Your task to perform on an android device: Open Maps and search for coffee Image 0: 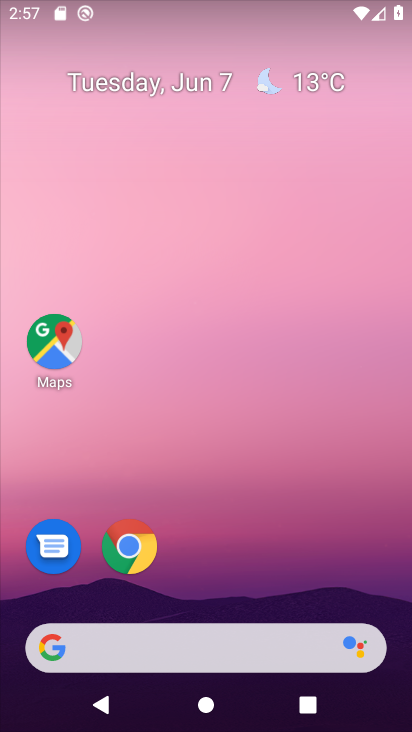
Step 0: drag from (339, 547) to (346, 333)
Your task to perform on an android device: Open Maps and search for coffee Image 1: 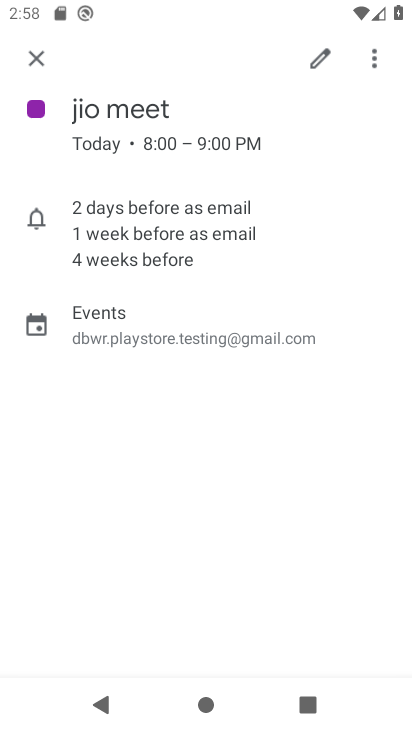
Step 1: press home button
Your task to perform on an android device: Open Maps and search for coffee Image 2: 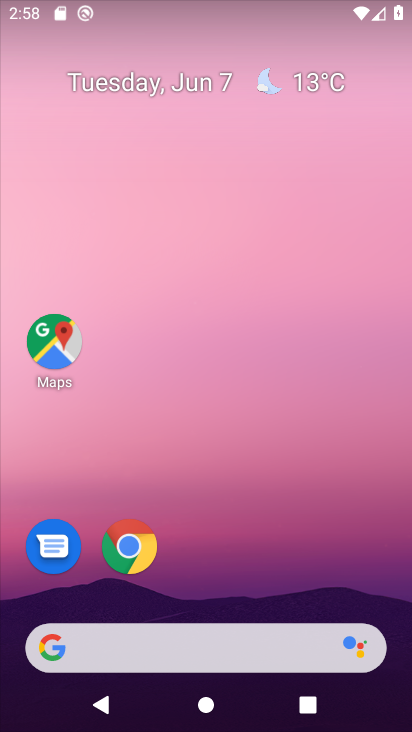
Step 2: drag from (353, 574) to (331, 131)
Your task to perform on an android device: Open Maps and search for coffee Image 3: 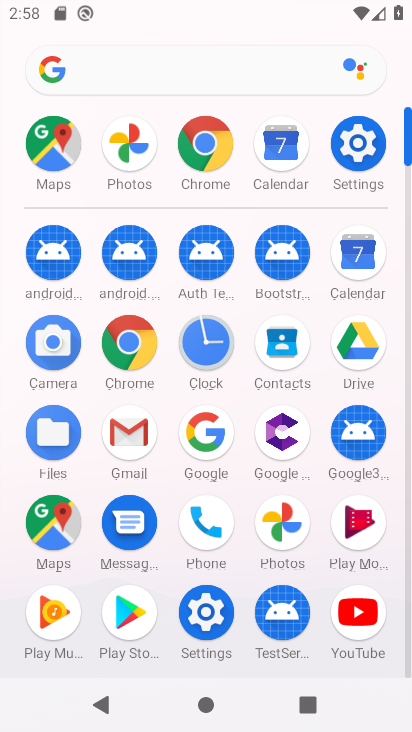
Step 3: click (43, 525)
Your task to perform on an android device: Open Maps and search for coffee Image 4: 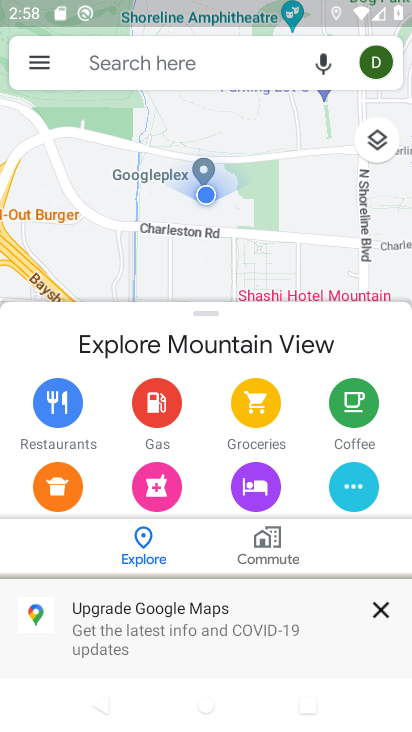
Step 4: click (158, 70)
Your task to perform on an android device: Open Maps and search for coffee Image 5: 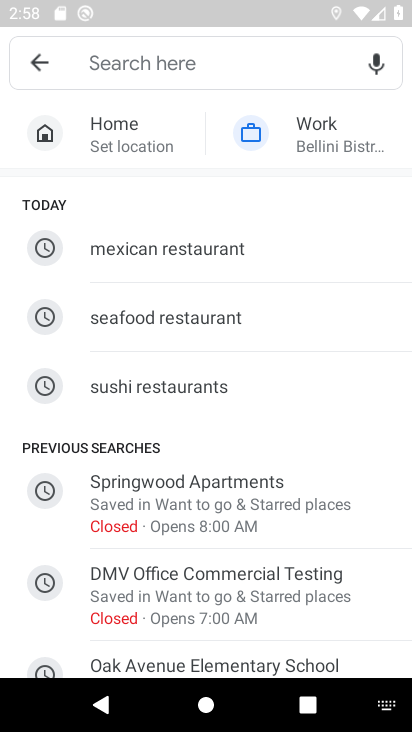
Step 5: type "coffee"
Your task to perform on an android device: Open Maps and search for coffee Image 6: 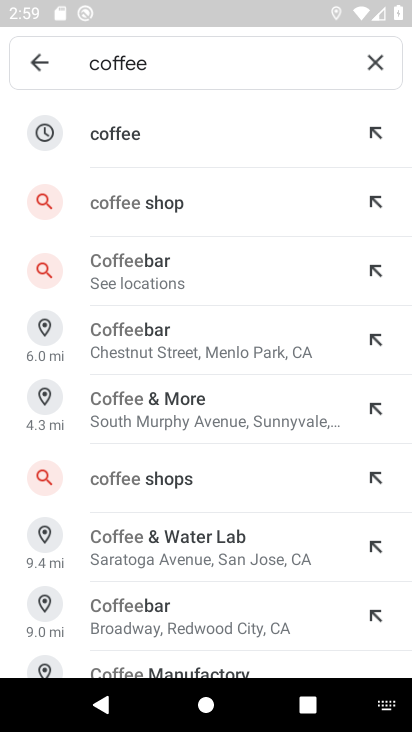
Step 6: click (185, 51)
Your task to perform on an android device: Open Maps and search for coffee Image 7: 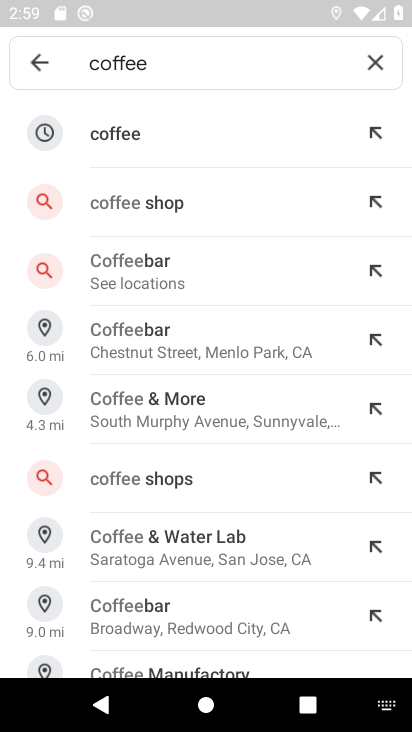
Step 7: click (180, 140)
Your task to perform on an android device: Open Maps and search for coffee Image 8: 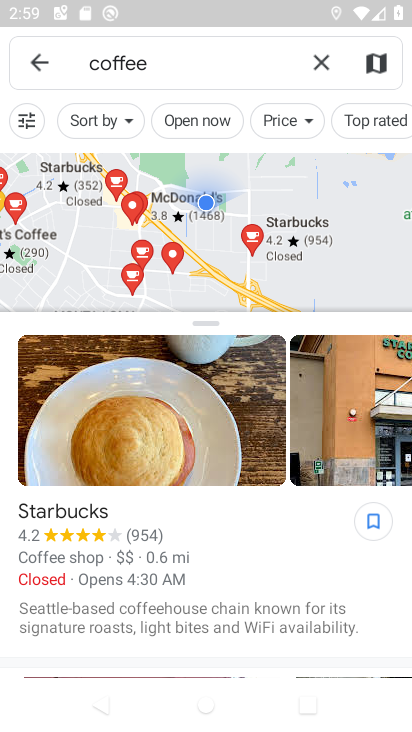
Step 8: task complete